Your task to perform on an android device: add a contact Image 0: 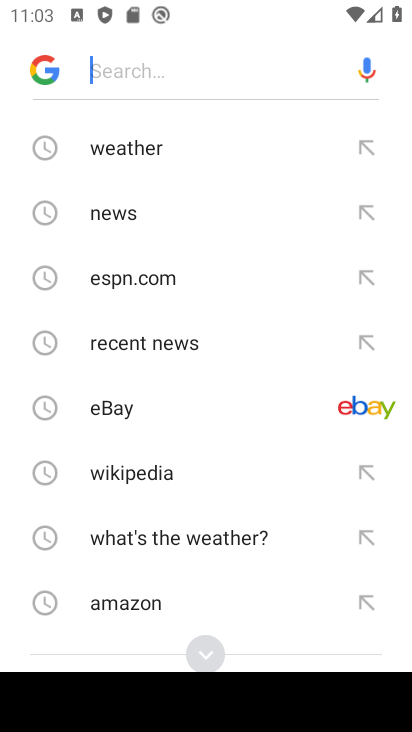
Step 0: press home button
Your task to perform on an android device: add a contact Image 1: 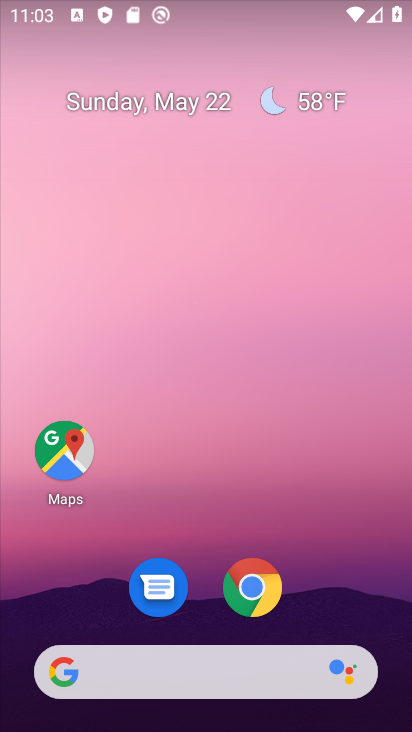
Step 1: drag from (197, 475) to (234, 60)
Your task to perform on an android device: add a contact Image 2: 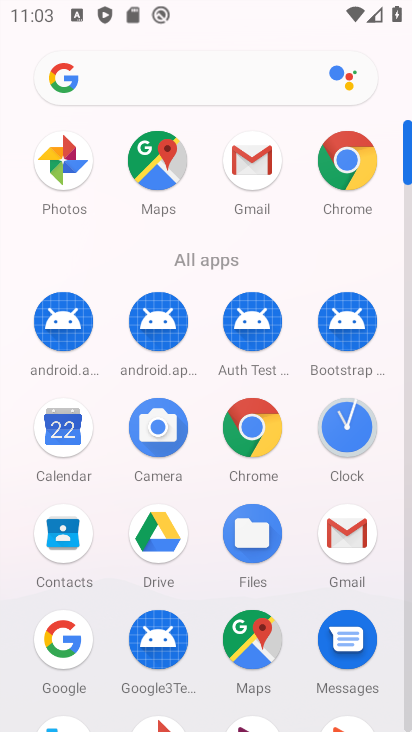
Step 2: click (78, 529)
Your task to perform on an android device: add a contact Image 3: 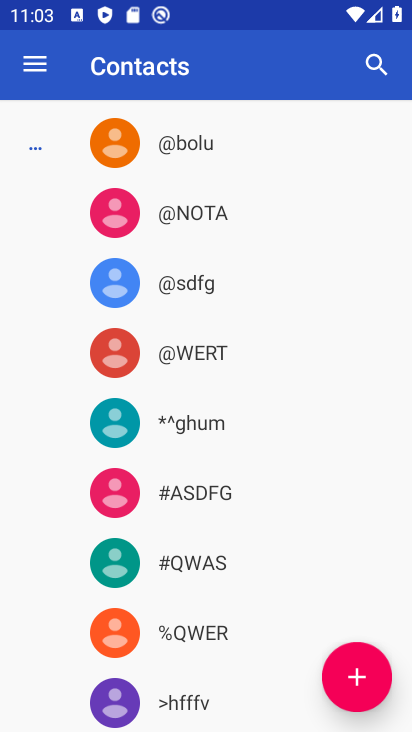
Step 3: click (351, 672)
Your task to perform on an android device: add a contact Image 4: 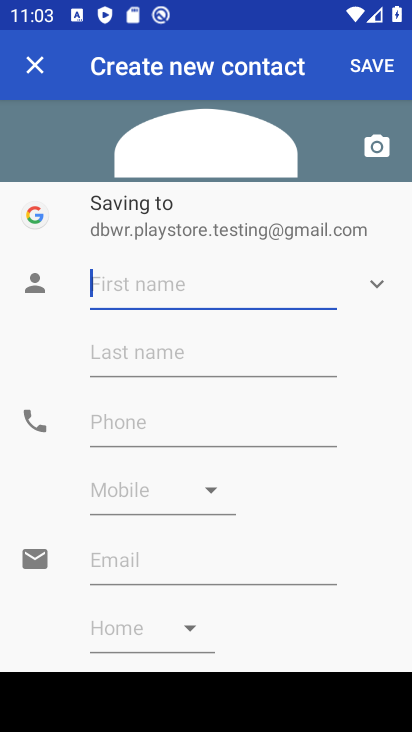
Step 4: type "Rudransh"
Your task to perform on an android device: add a contact Image 5: 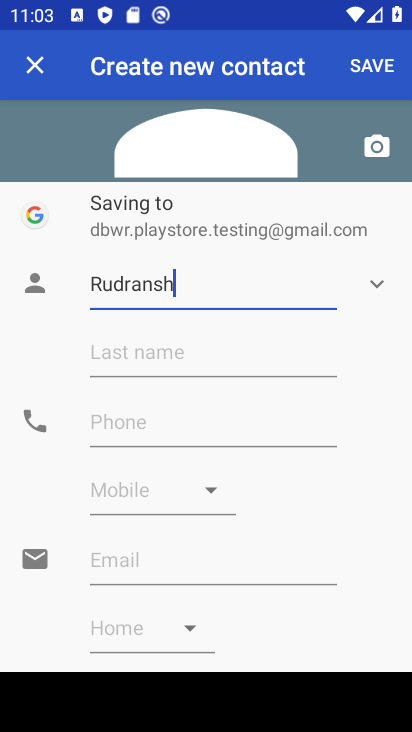
Step 5: click (183, 428)
Your task to perform on an android device: add a contact Image 6: 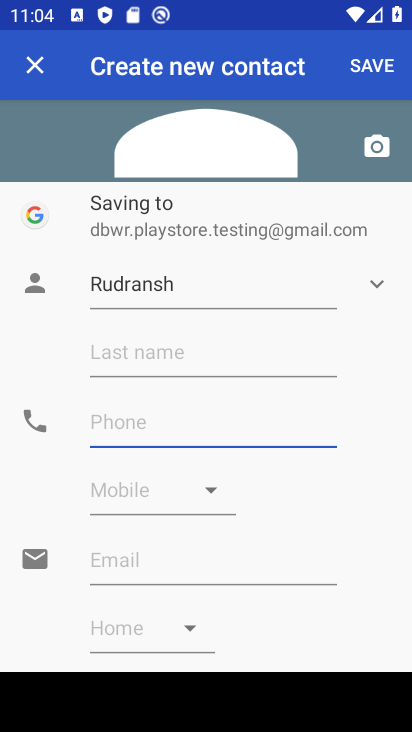
Step 6: type "919997775533"
Your task to perform on an android device: add a contact Image 7: 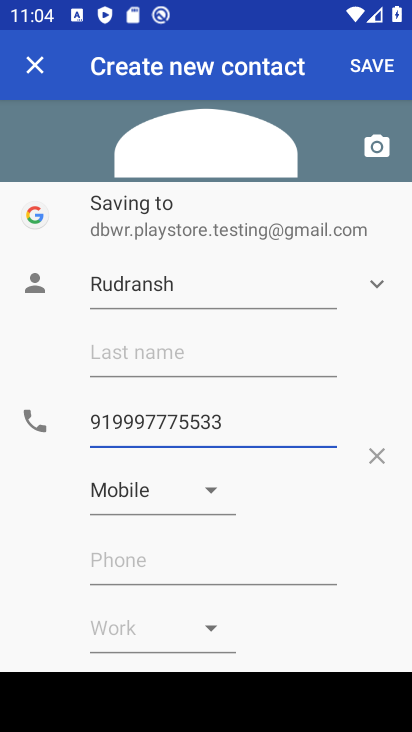
Step 7: click (386, 69)
Your task to perform on an android device: add a contact Image 8: 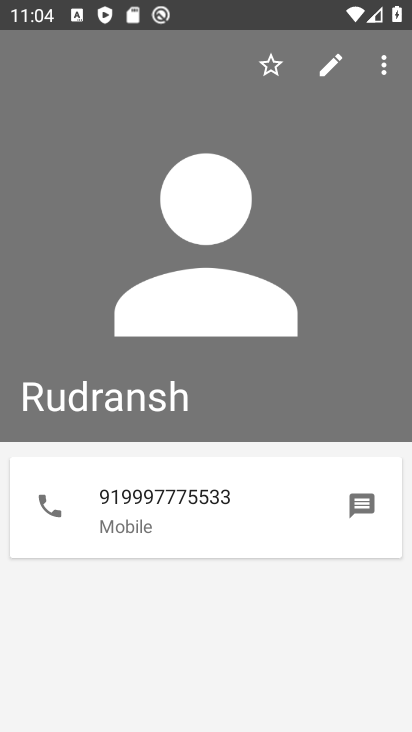
Step 8: task complete